Your task to perform on an android device: Go to sound settings Image 0: 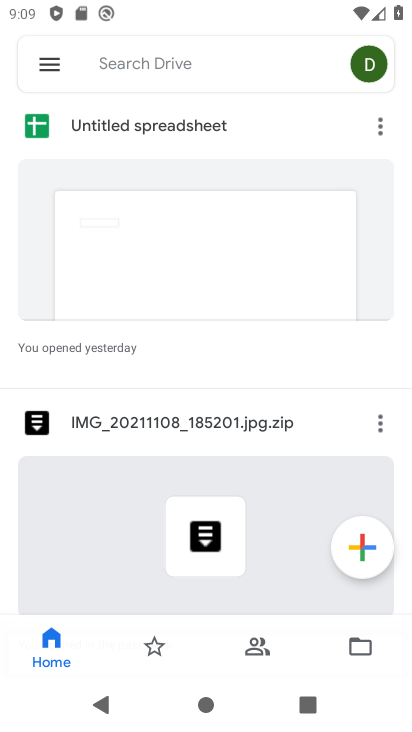
Step 0: press home button
Your task to perform on an android device: Go to sound settings Image 1: 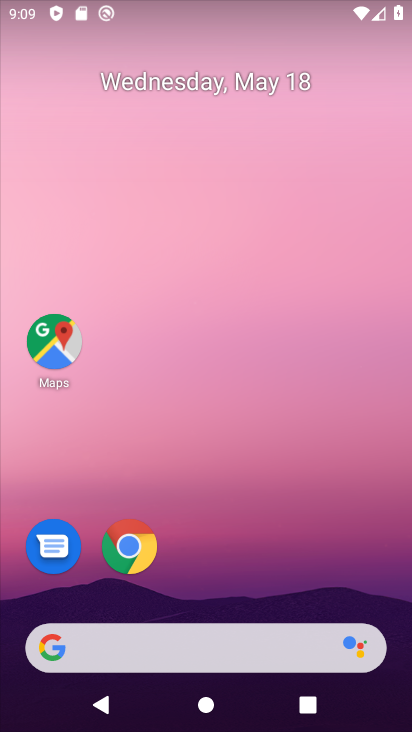
Step 1: drag from (202, 644) to (154, 203)
Your task to perform on an android device: Go to sound settings Image 2: 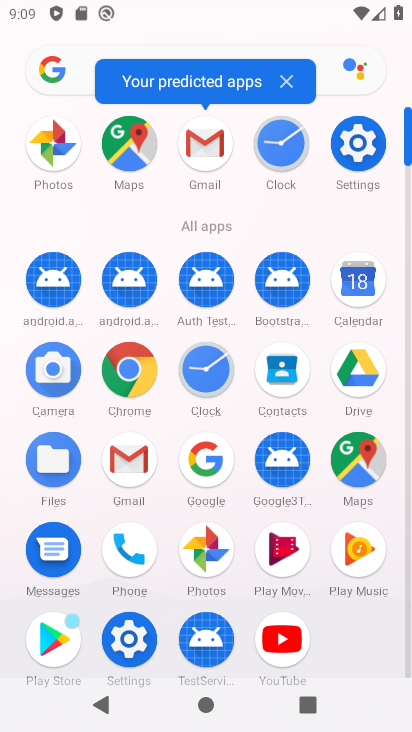
Step 2: click (115, 643)
Your task to perform on an android device: Go to sound settings Image 3: 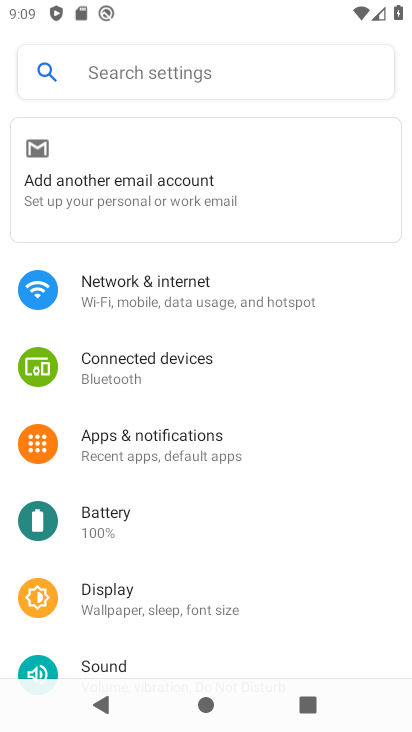
Step 3: drag from (155, 606) to (130, 272)
Your task to perform on an android device: Go to sound settings Image 4: 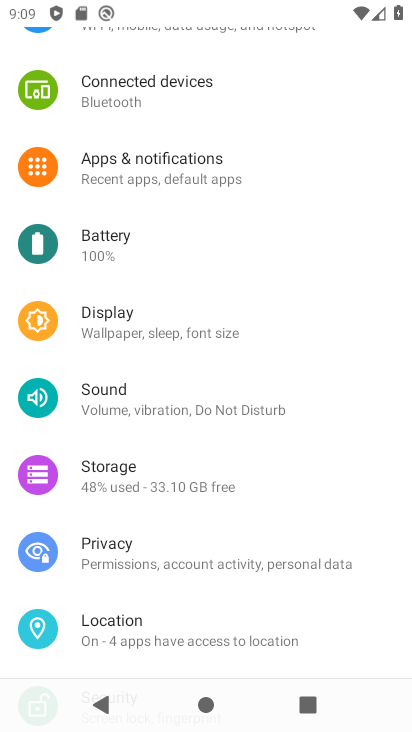
Step 4: click (117, 403)
Your task to perform on an android device: Go to sound settings Image 5: 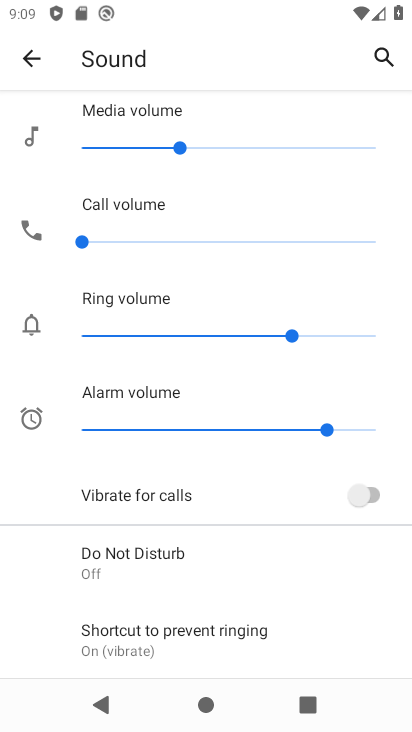
Step 5: task complete